Your task to perform on an android device: turn pop-ups on in chrome Image 0: 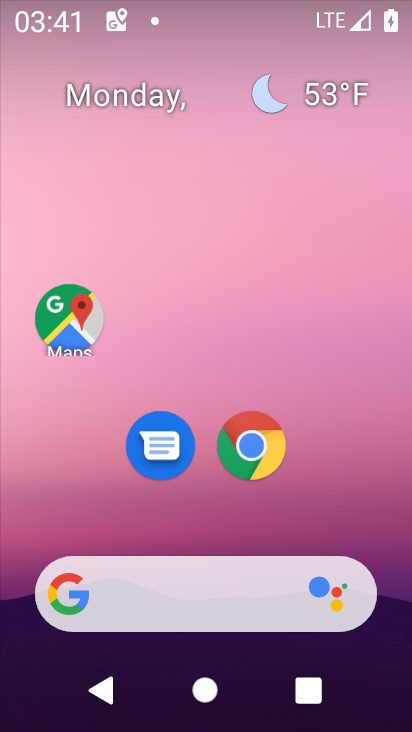
Step 0: drag from (208, 540) to (216, 189)
Your task to perform on an android device: turn pop-ups on in chrome Image 1: 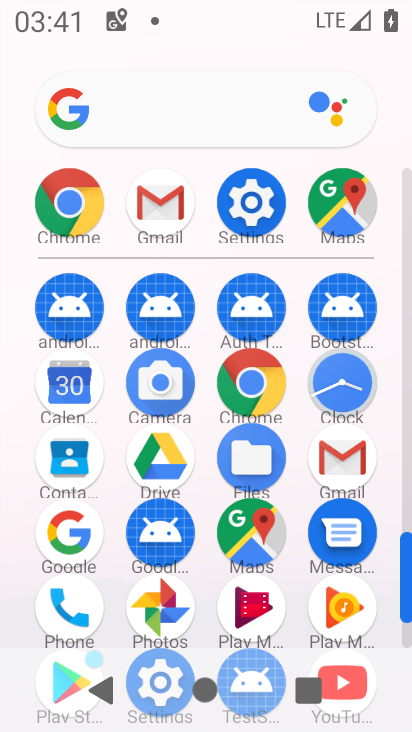
Step 1: click (272, 381)
Your task to perform on an android device: turn pop-ups on in chrome Image 2: 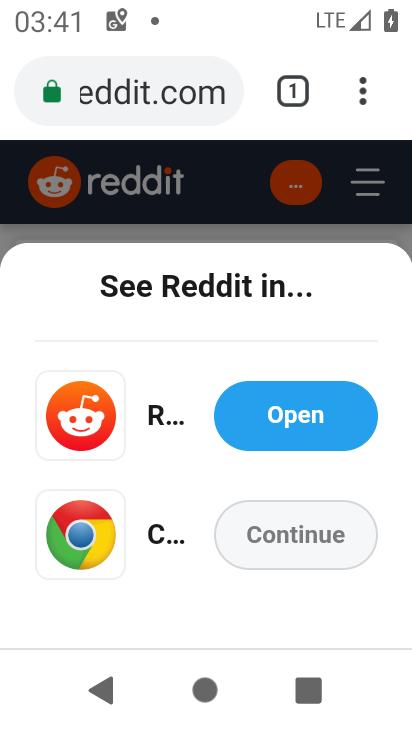
Step 2: click (364, 106)
Your task to perform on an android device: turn pop-ups on in chrome Image 3: 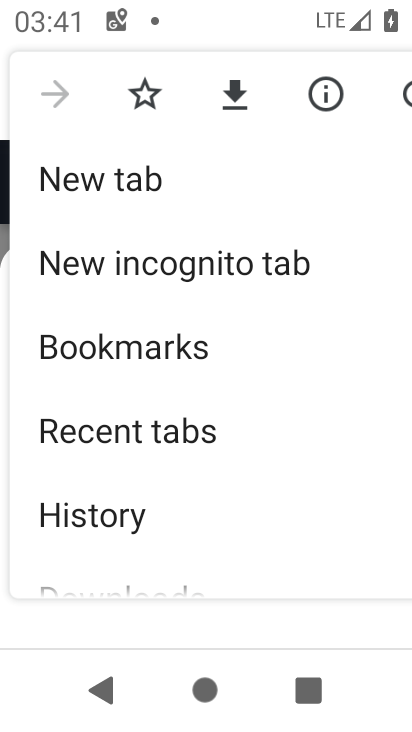
Step 3: drag from (184, 547) to (228, 197)
Your task to perform on an android device: turn pop-ups on in chrome Image 4: 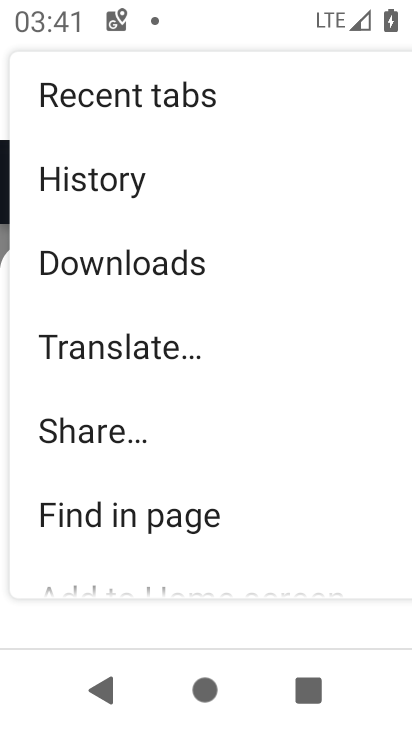
Step 4: drag from (137, 530) to (166, 335)
Your task to perform on an android device: turn pop-ups on in chrome Image 5: 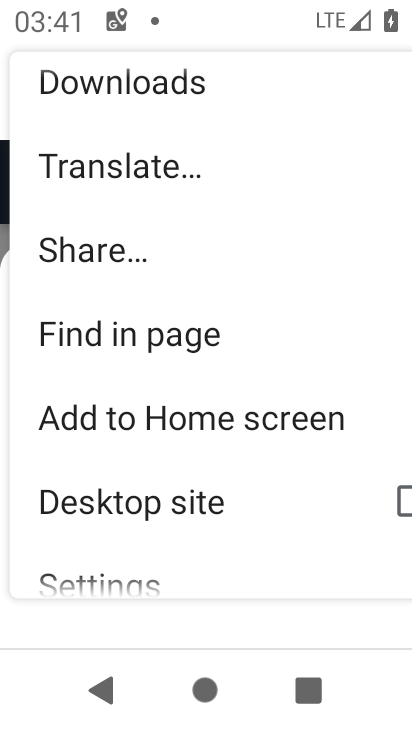
Step 5: drag from (121, 521) to (162, 382)
Your task to perform on an android device: turn pop-ups on in chrome Image 6: 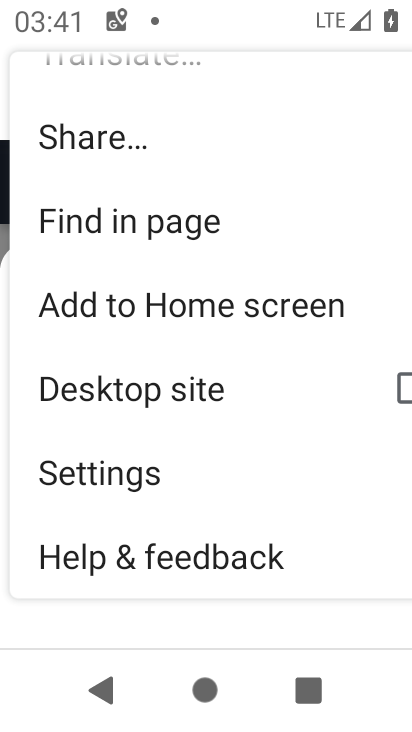
Step 6: click (107, 474)
Your task to perform on an android device: turn pop-ups on in chrome Image 7: 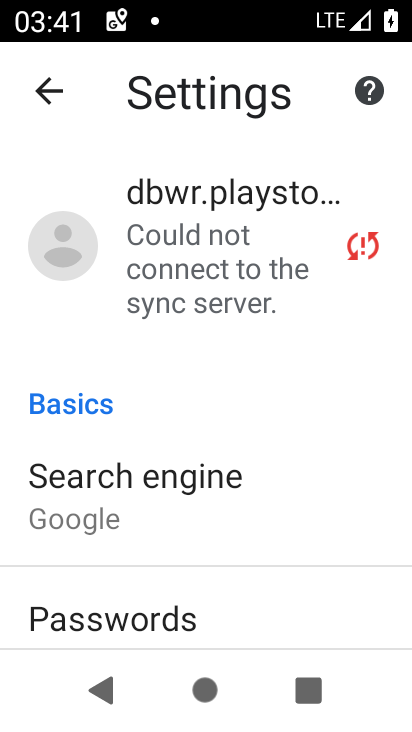
Step 7: drag from (148, 566) to (187, 336)
Your task to perform on an android device: turn pop-ups on in chrome Image 8: 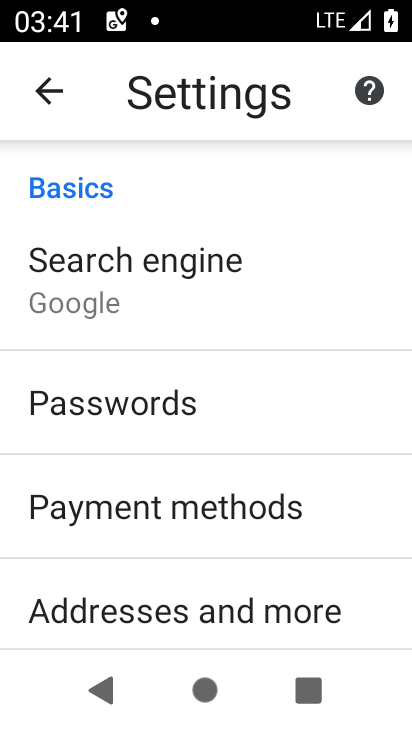
Step 8: drag from (104, 512) to (150, 206)
Your task to perform on an android device: turn pop-ups on in chrome Image 9: 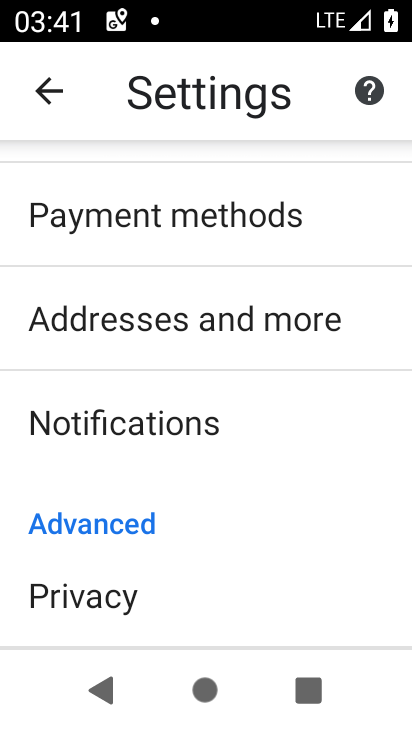
Step 9: drag from (123, 550) to (164, 299)
Your task to perform on an android device: turn pop-ups on in chrome Image 10: 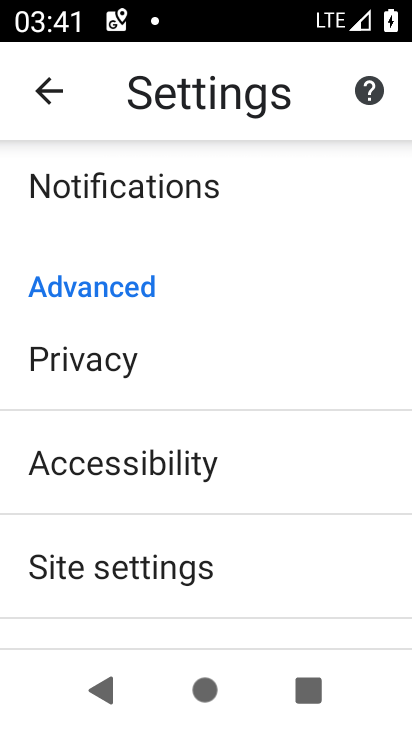
Step 10: drag from (143, 558) to (151, 479)
Your task to perform on an android device: turn pop-ups on in chrome Image 11: 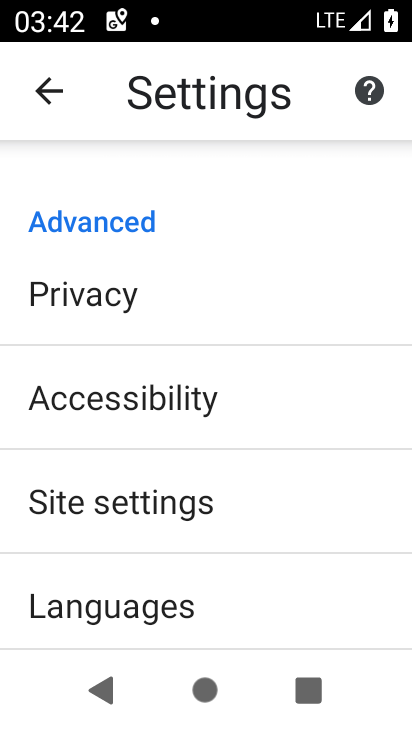
Step 11: click (128, 514)
Your task to perform on an android device: turn pop-ups on in chrome Image 12: 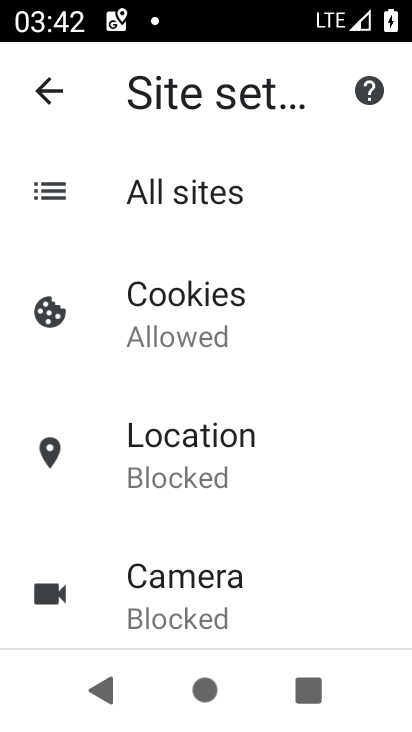
Step 12: drag from (156, 595) to (195, 360)
Your task to perform on an android device: turn pop-ups on in chrome Image 13: 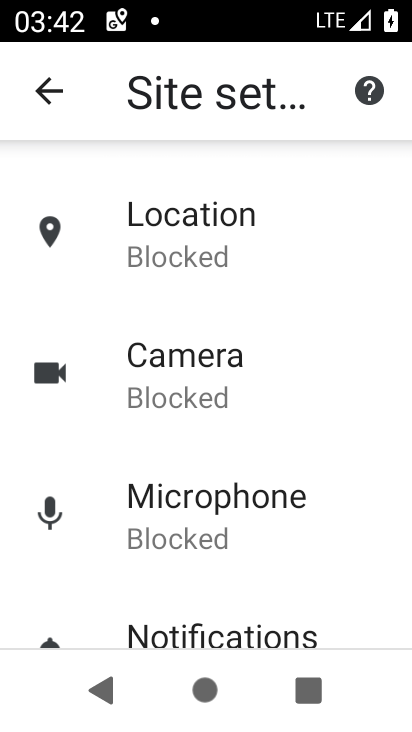
Step 13: drag from (176, 506) to (253, 142)
Your task to perform on an android device: turn pop-ups on in chrome Image 14: 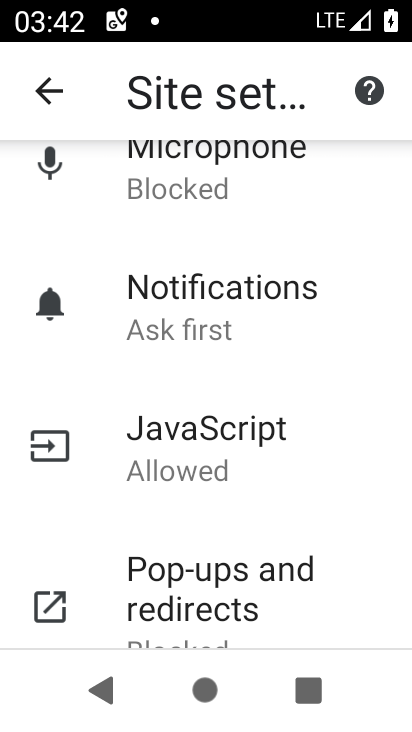
Step 14: click (169, 592)
Your task to perform on an android device: turn pop-ups on in chrome Image 15: 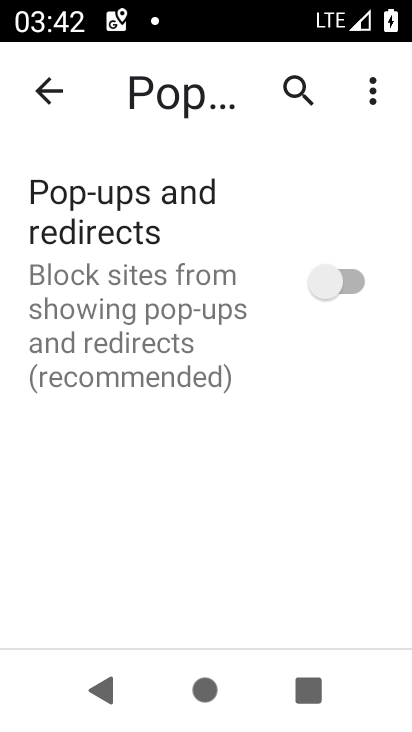
Step 15: click (367, 270)
Your task to perform on an android device: turn pop-ups on in chrome Image 16: 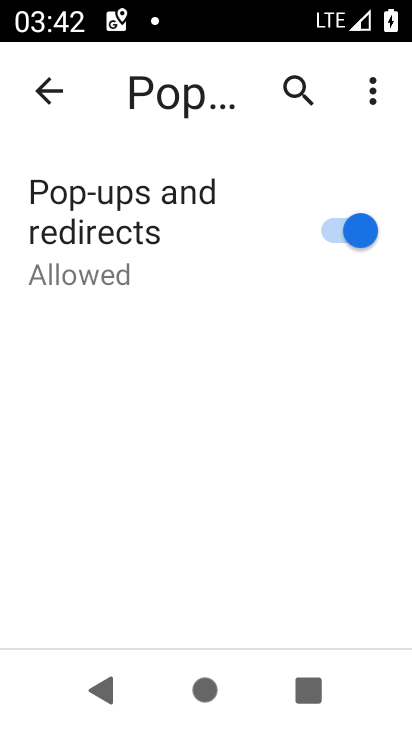
Step 16: task complete